Your task to perform on an android device: delete the emails in spam in the gmail app Image 0: 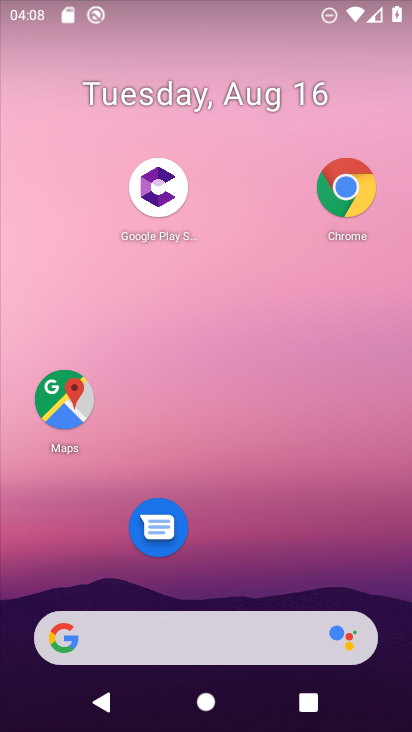
Step 0: drag from (239, 591) to (221, 9)
Your task to perform on an android device: delete the emails in spam in the gmail app Image 1: 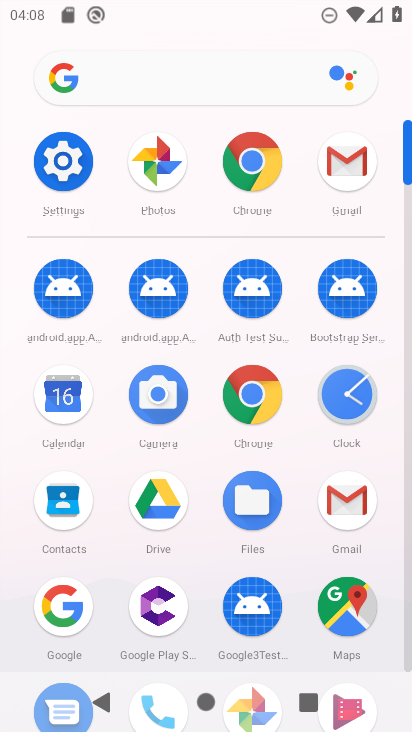
Step 1: click (345, 491)
Your task to perform on an android device: delete the emails in spam in the gmail app Image 2: 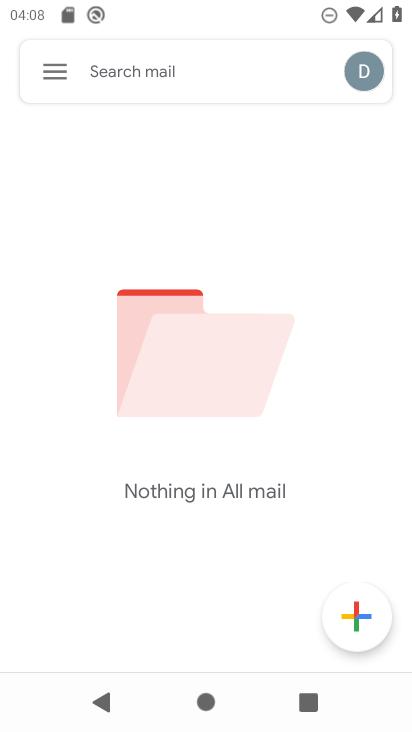
Step 2: click (47, 75)
Your task to perform on an android device: delete the emails in spam in the gmail app Image 3: 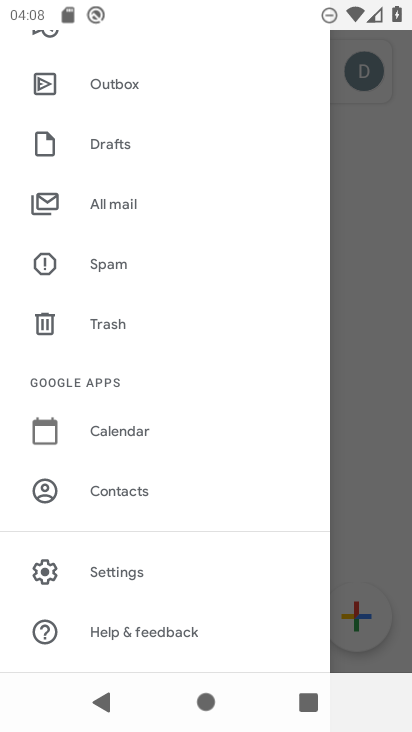
Step 3: click (96, 263)
Your task to perform on an android device: delete the emails in spam in the gmail app Image 4: 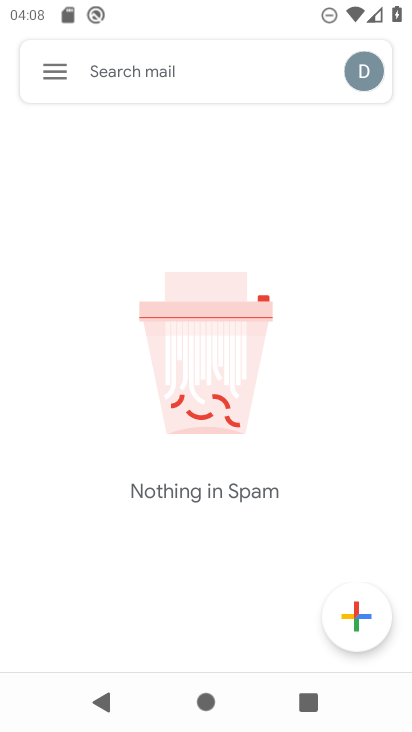
Step 4: task complete